Your task to perform on an android device: Open Google Image 0: 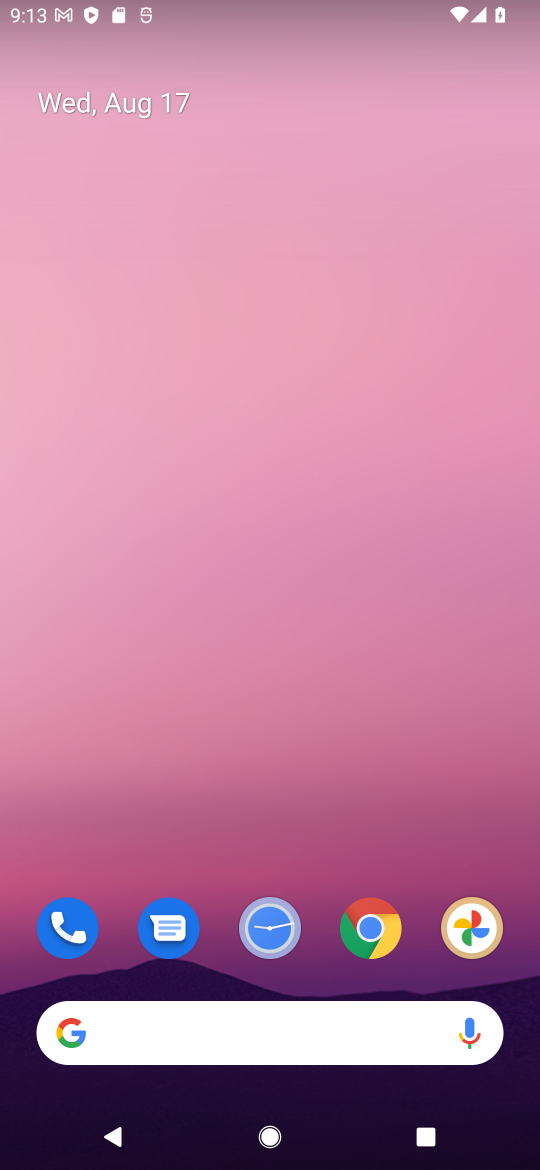
Step 0: drag from (405, 831) to (352, 75)
Your task to perform on an android device: Open Google Image 1: 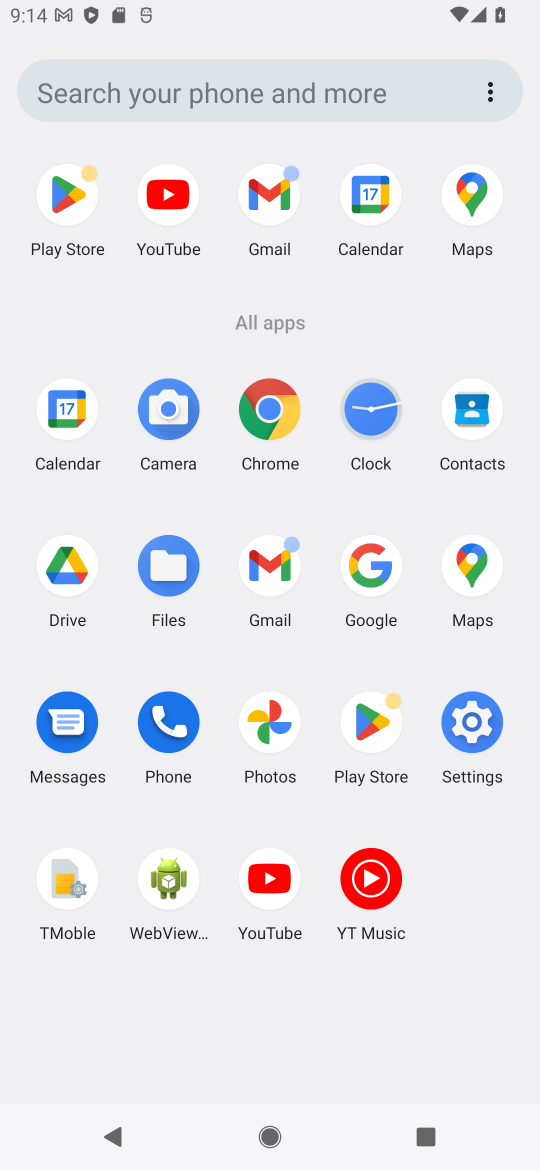
Step 1: click (365, 577)
Your task to perform on an android device: Open Google Image 2: 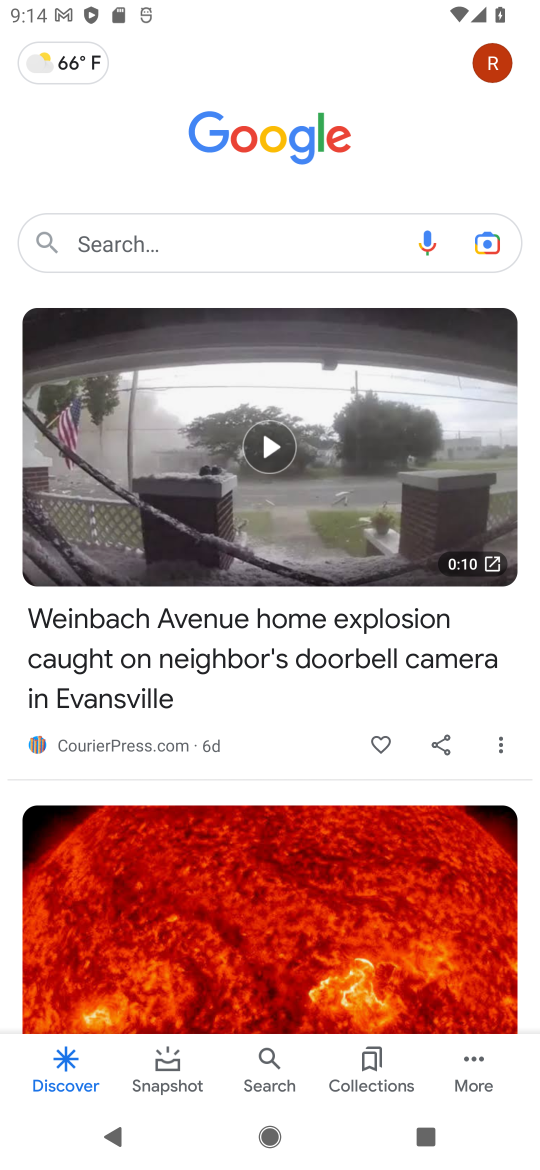
Step 2: task complete